Your task to perform on an android device: turn off javascript in the chrome app Image 0: 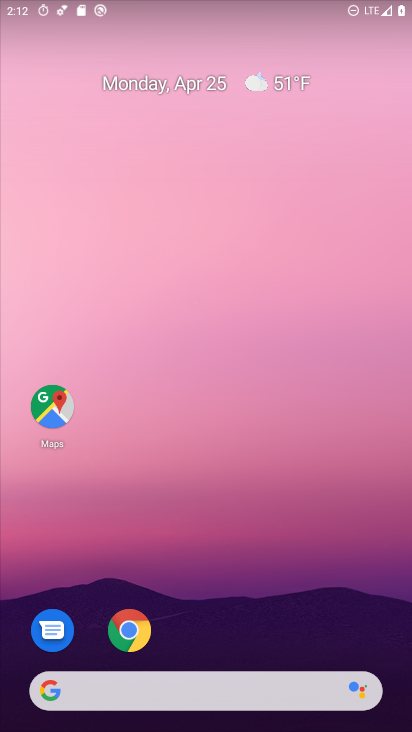
Step 0: drag from (193, 646) to (363, 2)
Your task to perform on an android device: turn off javascript in the chrome app Image 1: 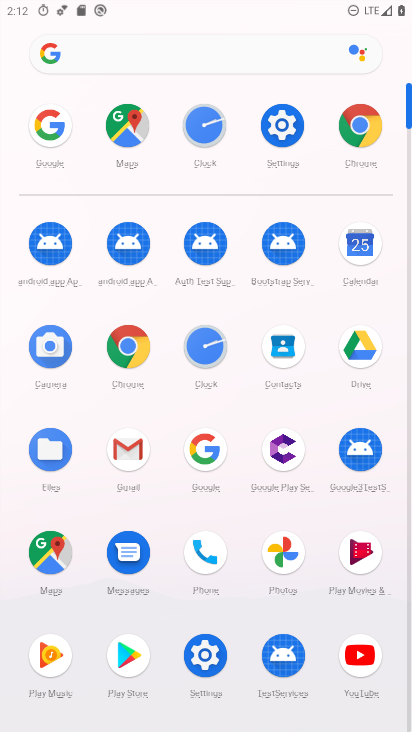
Step 1: click (130, 342)
Your task to perform on an android device: turn off javascript in the chrome app Image 2: 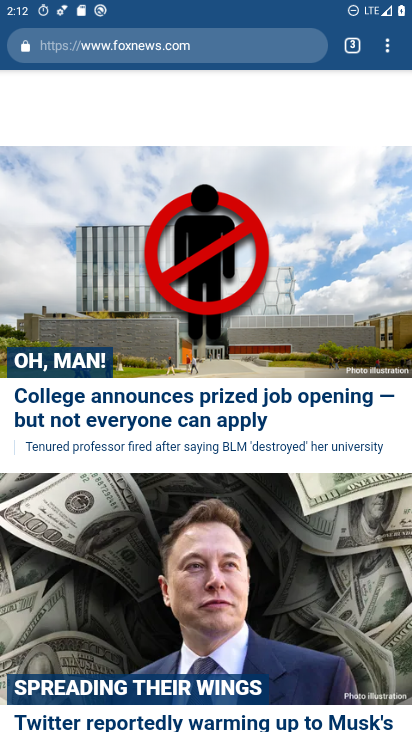
Step 2: drag from (263, 229) to (333, 726)
Your task to perform on an android device: turn off javascript in the chrome app Image 3: 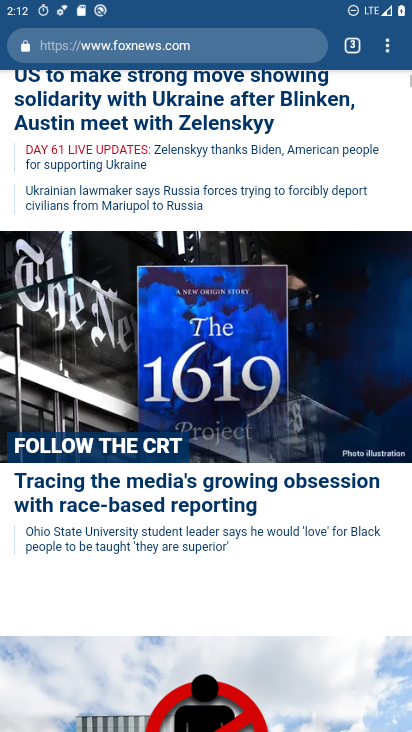
Step 3: drag from (388, 39) to (261, 593)
Your task to perform on an android device: turn off javascript in the chrome app Image 4: 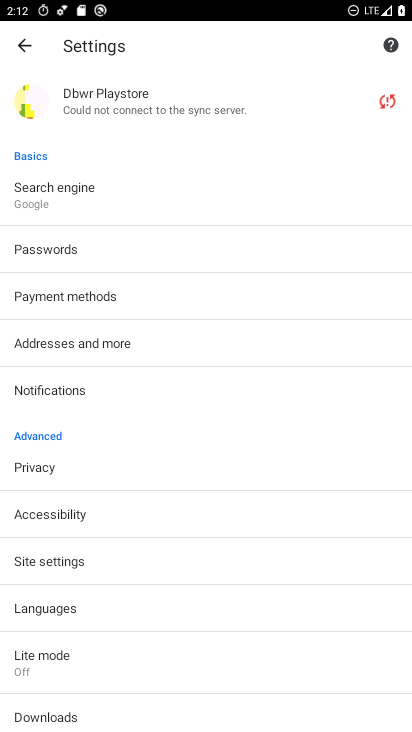
Step 4: click (106, 556)
Your task to perform on an android device: turn off javascript in the chrome app Image 5: 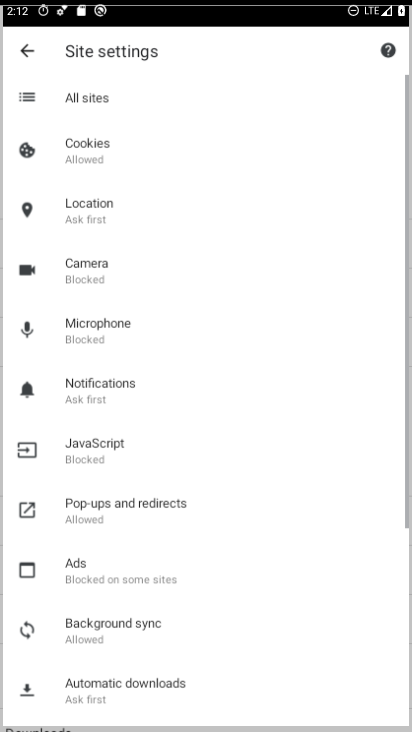
Step 5: drag from (161, 392) to (341, 42)
Your task to perform on an android device: turn off javascript in the chrome app Image 6: 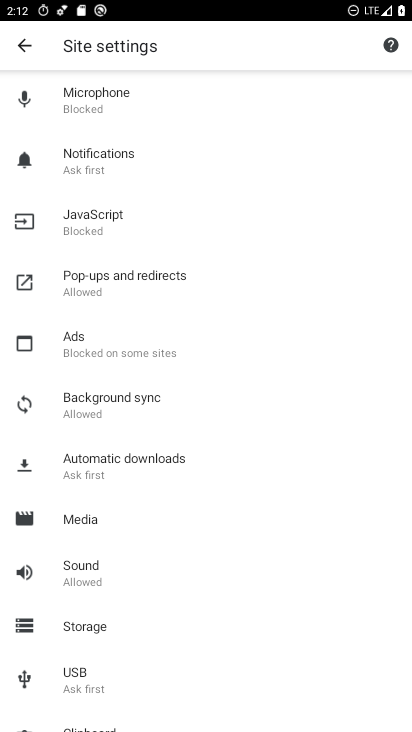
Step 6: drag from (145, 550) to (201, 184)
Your task to perform on an android device: turn off javascript in the chrome app Image 7: 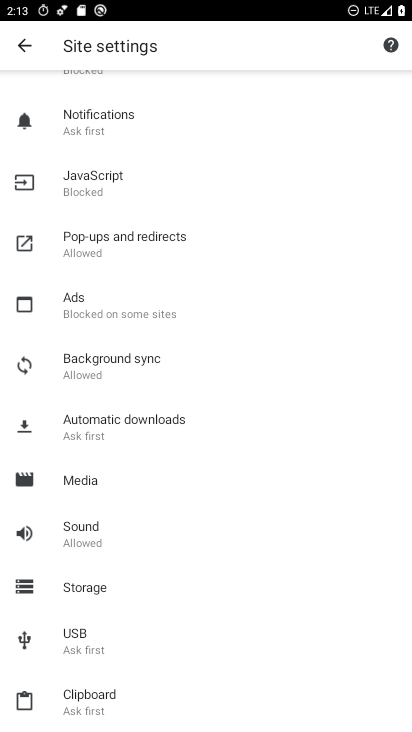
Step 7: click (141, 178)
Your task to perform on an android device: turn off javascript in the chrome app Image 8: 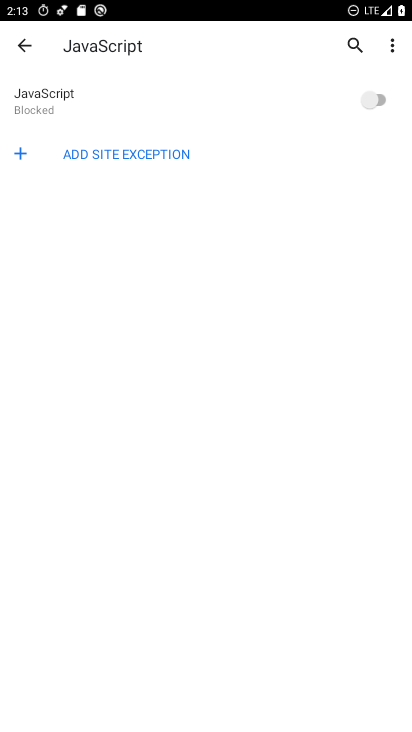
Step 8: task complete